Your task to perform on an android device: turn pop-ups off in chrome Image 0: 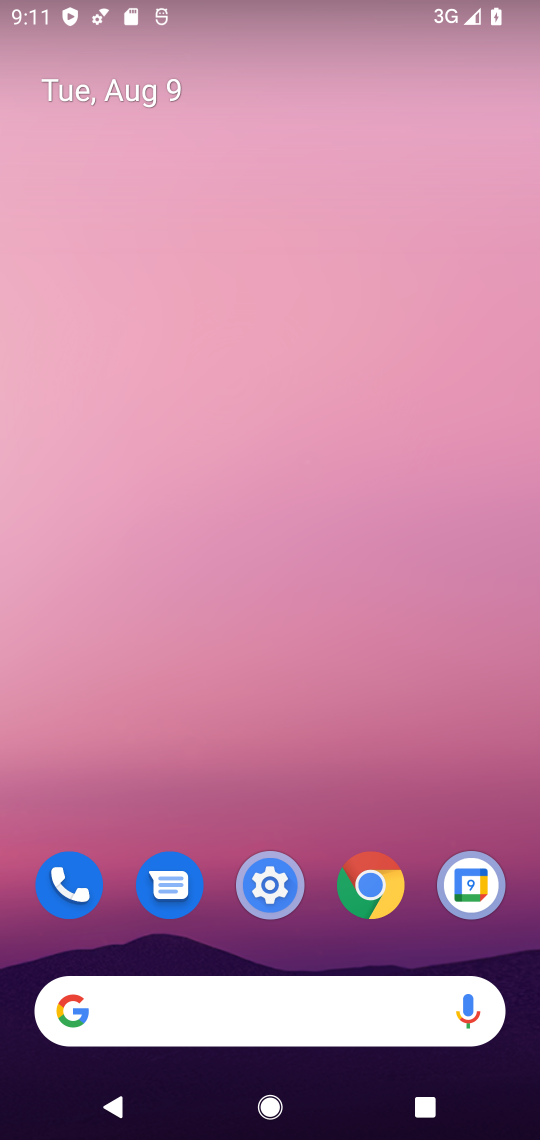
Step 0: press home button
Your task to perform on an android device: turn pop-ups off in chrome Image 1: 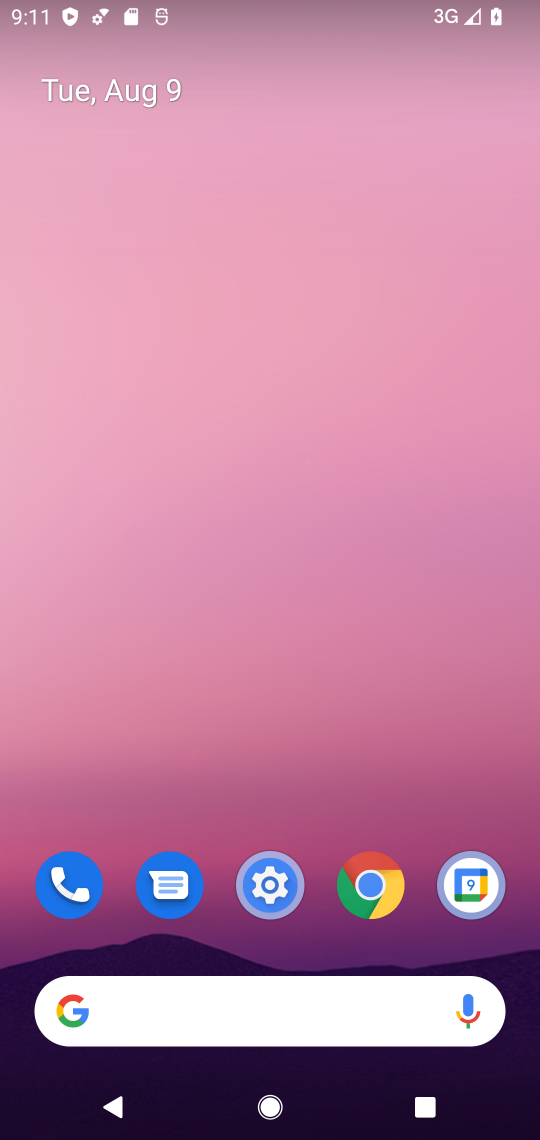
Step 1: click (372, 886)
Your task to perform on an android device: turn pop-ups off in chrome Image 2: 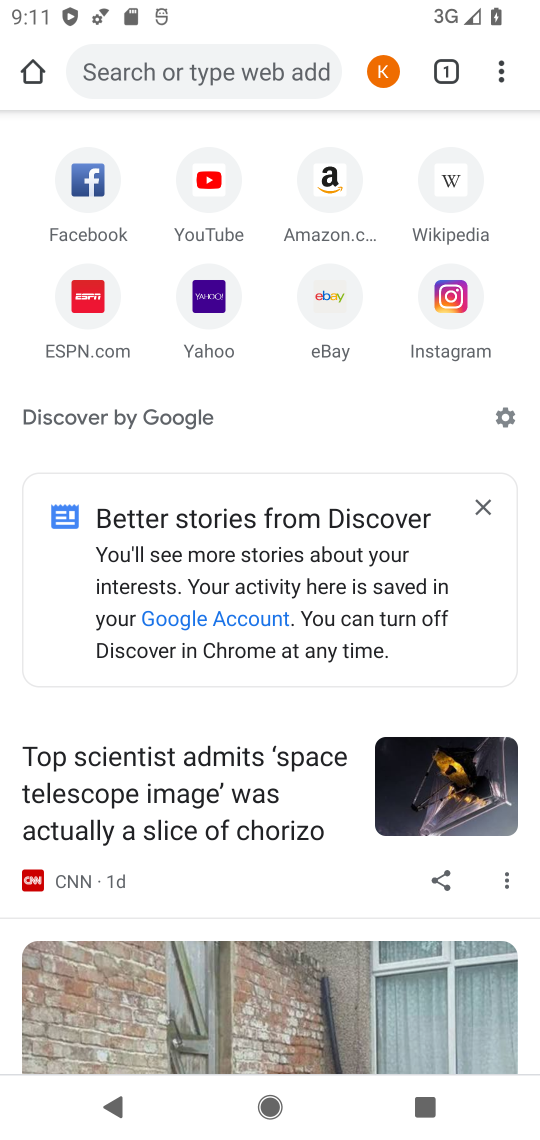
Step 2: click (502, 80)
Your task to perform on an android device: turn pop-ups off in chrome Image 3: 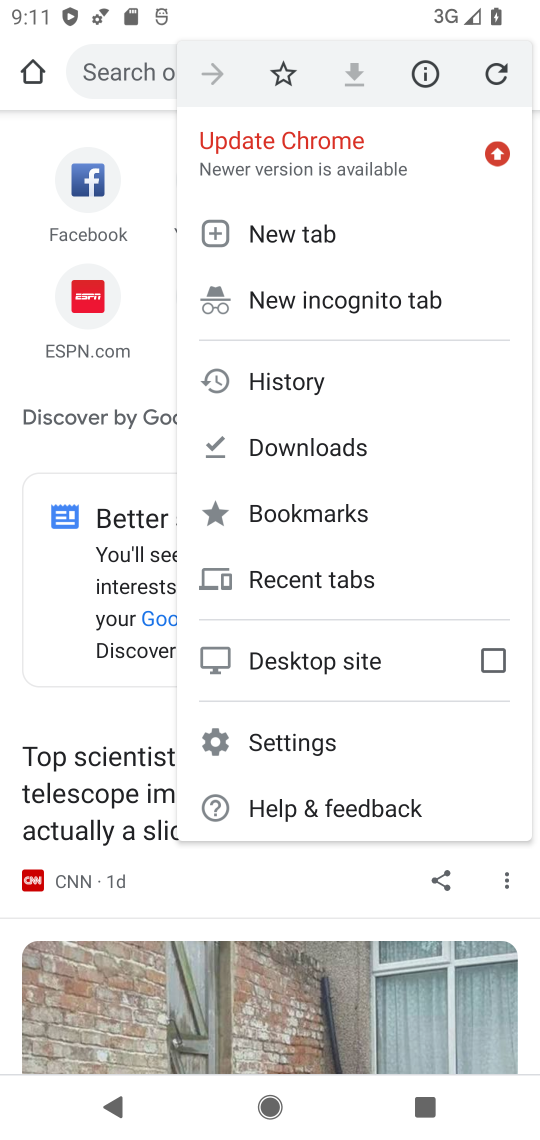
Step 3: click (293, 732)
Your task to perform on an android device: turn pop-ups off in chrome Image 4: 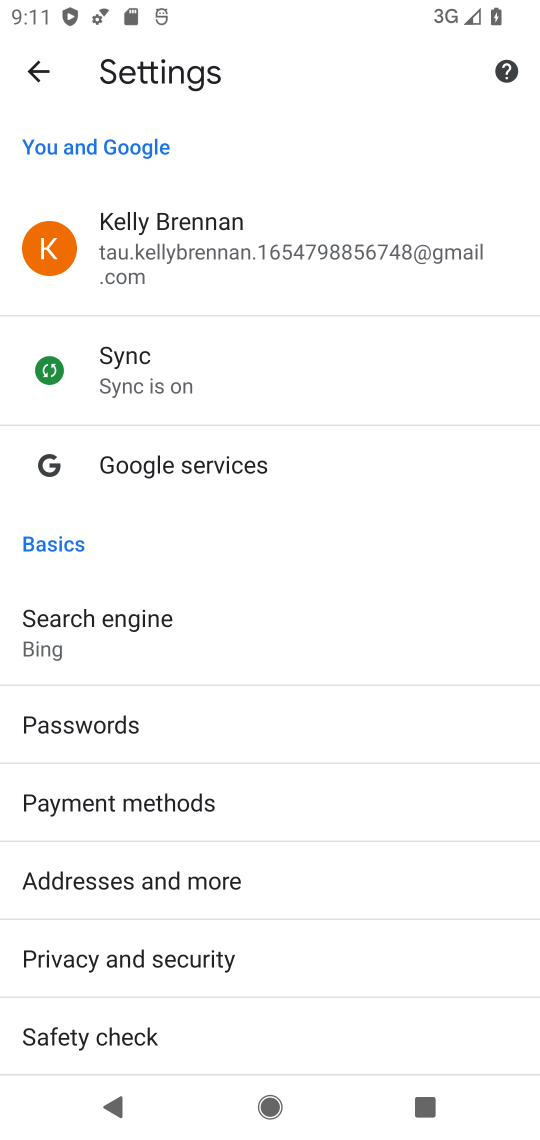
Step 4: drag from (256, 978) to (278, 299)
Your task to perform on an android device: turn pop-ups off in chrome Image 5: 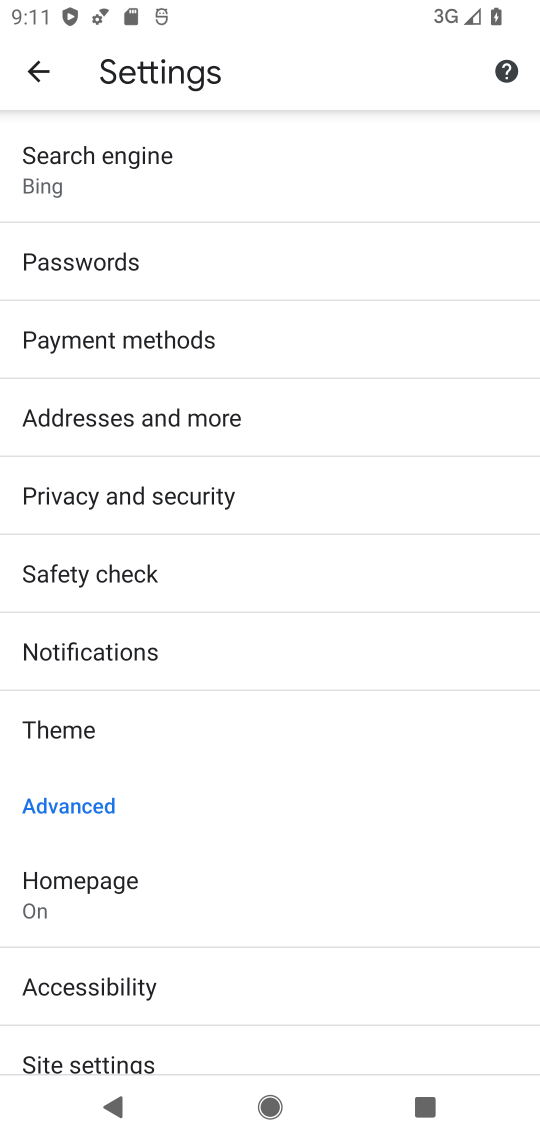
Step 5: click (197, 1046)
Your task to perform on an android device: turn pop-ups off in chrome Image 6: 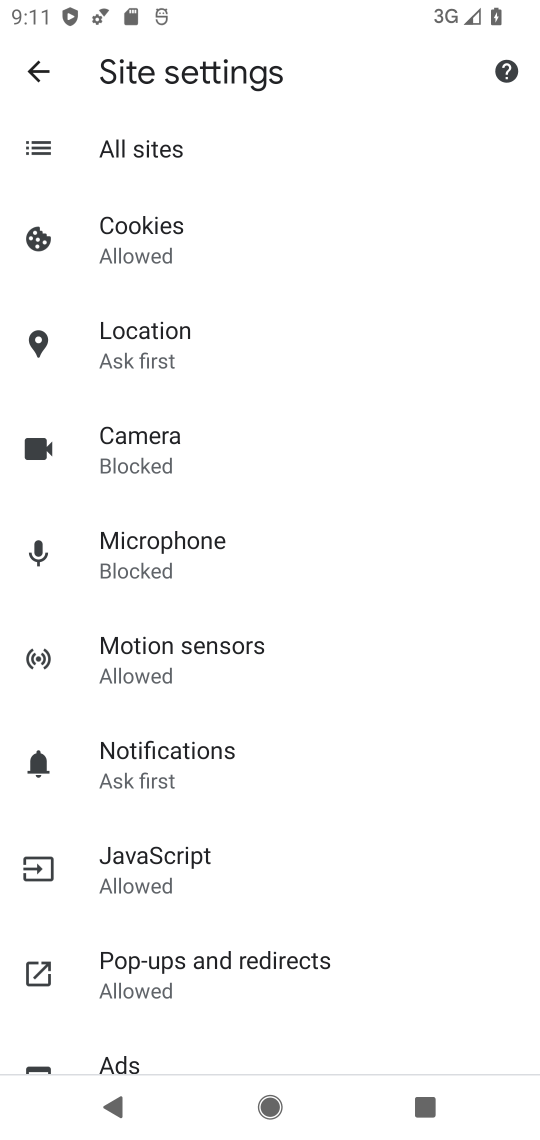
Step 6: click (204, 979)
Your task to perform on an android device: turn pop-ups off in chrome Image 7: 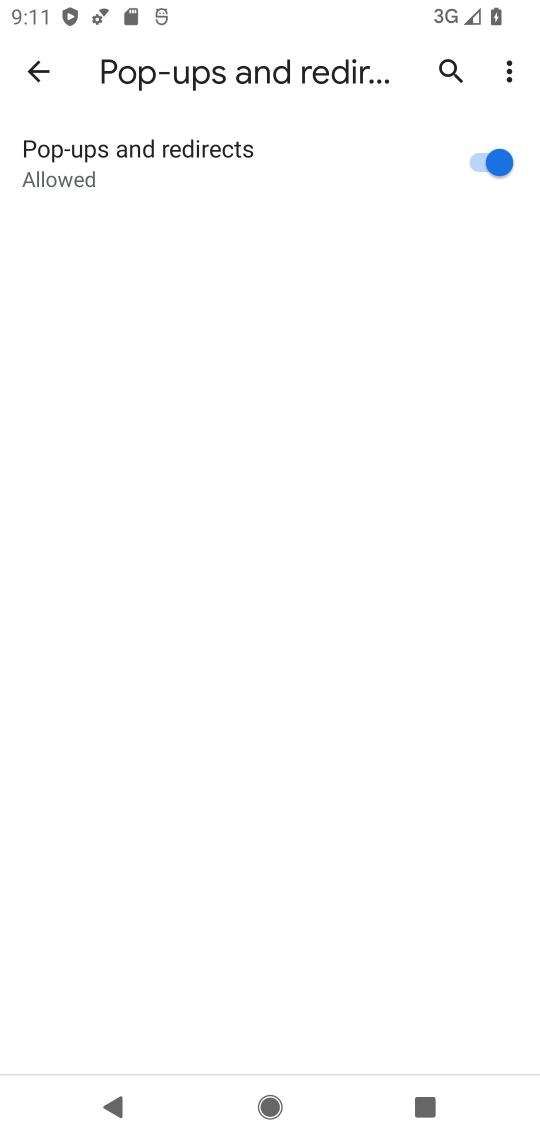
Step 7: click (481, 149)
Your task to perform on an android device: turn pop-ups off in chrome Image 8: 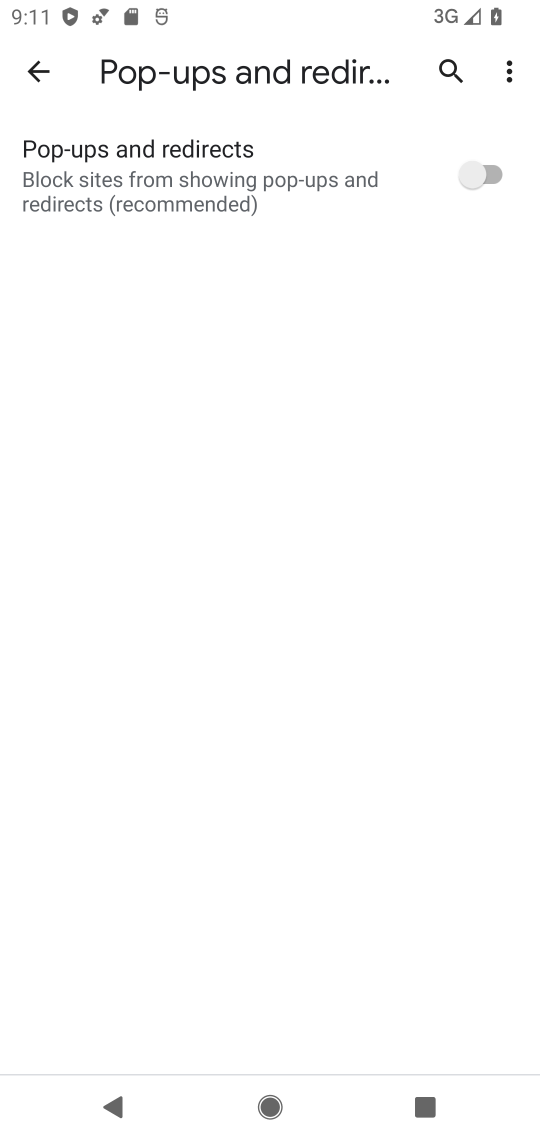
Step 8: task complete